Your task to perform on an android device: Open Google Maps and go to "Timeline" Image 0: 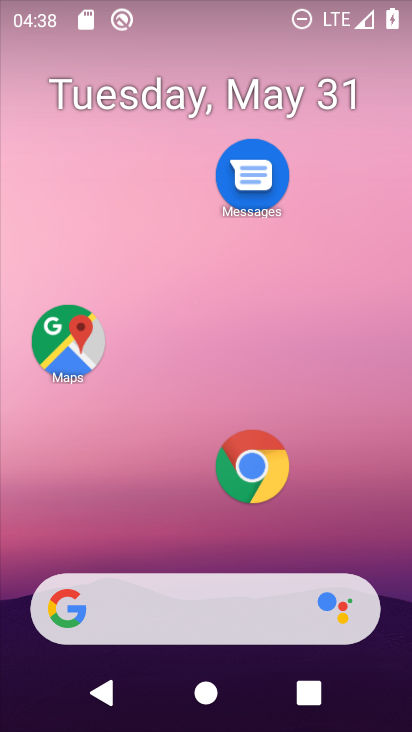
Step 0: click (57, 292)
Your task to perform on an android device: Open Google Maps and go to "Timeline" Image 1: 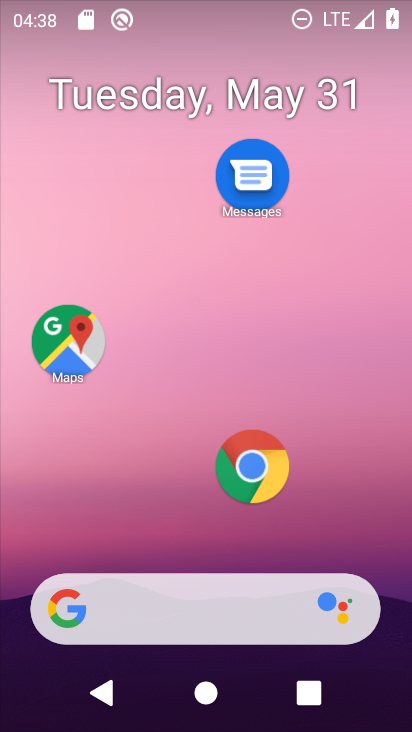
Step 1: click (56, 334)
Your task to perform on an android device: Open Google Maps and go to "Timeline" Image 2: 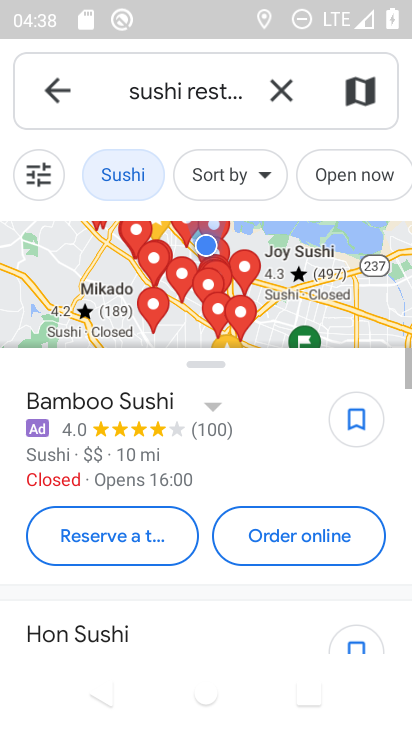
Step 2: click (65, 88)
Your task to perform on an android device: Open Google Maps and go to "Timeline" Image 3: 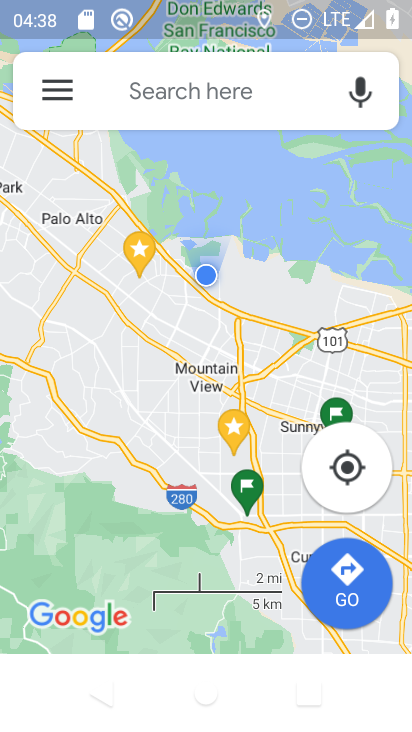
Step 3: click (58, 80)
Your task to perform on an android device: Open Google Maps and go to "Timeline" Image 4: 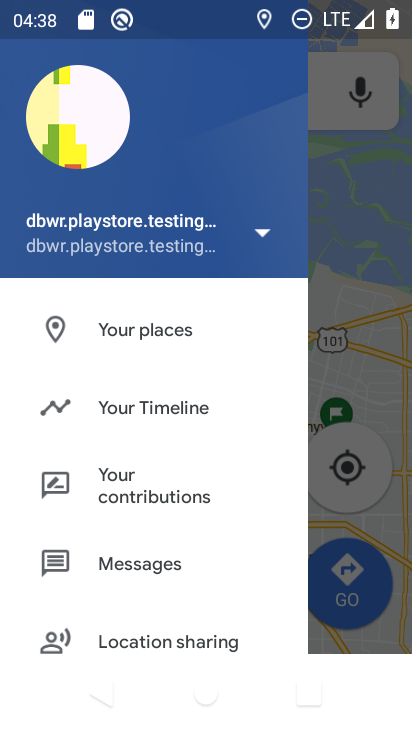
Step 4: click (169, 424)
Your task to perform on an android device: Open Google Maps and go to "Timeline" Image 5: 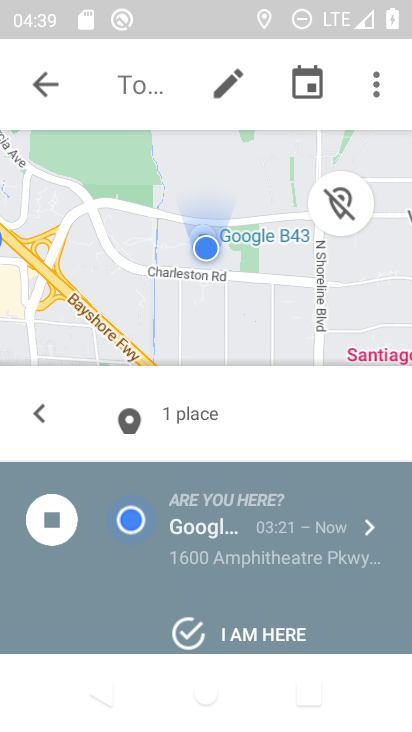
Step 5: task complete